Your task to perform on an android device: star an email in the gmail app Image 0: 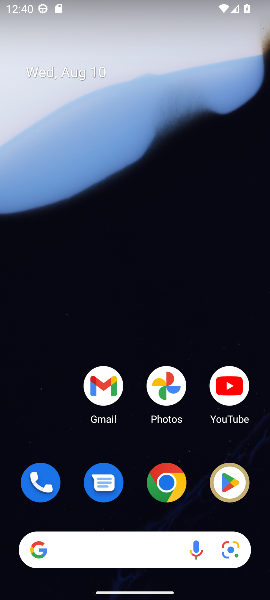
Step 0: click (104, 393)
Your task to perform on an android device: star an email in the gmail app Image 1: 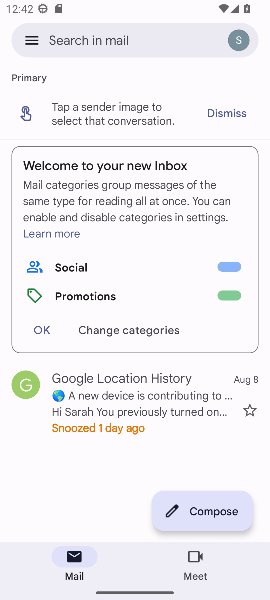
Step 1: task complete